Your task to perform on an android device: Find coffee shops on Maps Image 0: 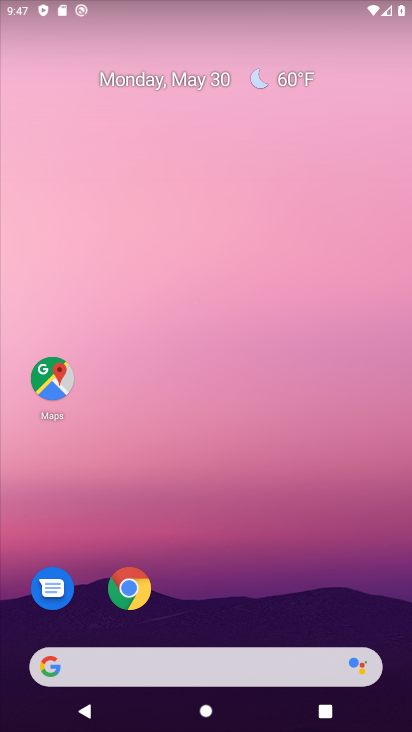
Step 0: click (57, 378)
Your task to perform on an android device: Find coffee shops on Maps Image 1: 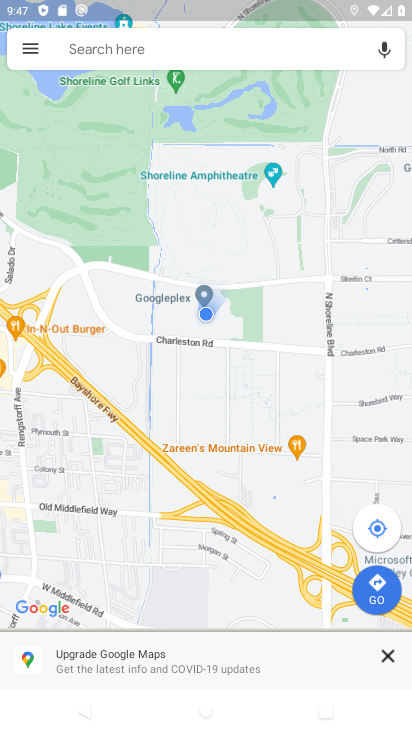
Step 1: click (207, 57)
Your task to perform on an android device: Find coffee shops on Maps Image 2: 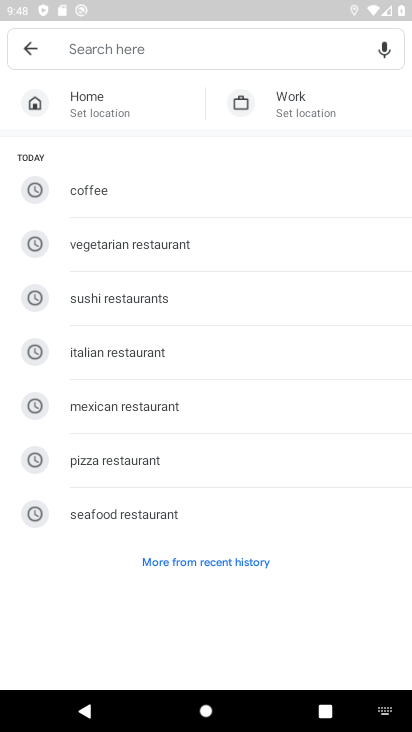
Step 2: type "coffee shops"
Your task to perform on an android device: Find coffee shops on Maps Image 3: 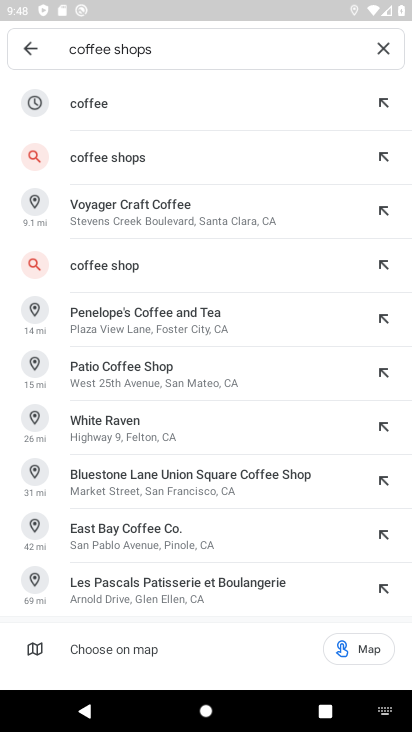
Step 3: click (151, 161)
Your task to perform on an android device: Find coffee shops on Maps Image 4: 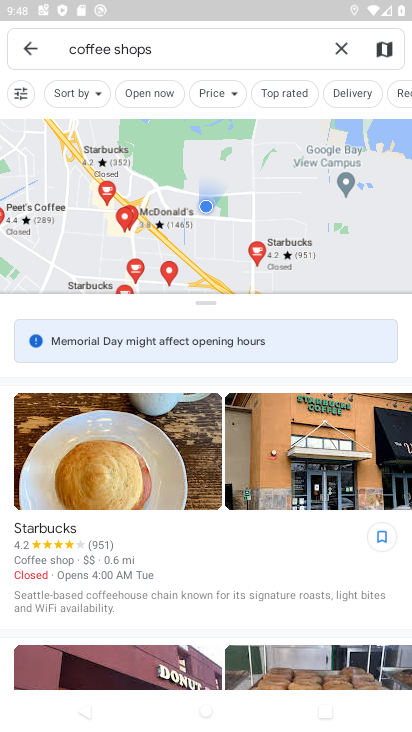
Step 4: task complete